Your task to perform on an android device: What's on the menu at Chick-fil-A? Image 0: 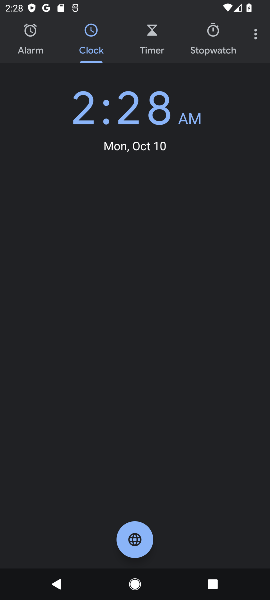
Step 0: press home button
Your task to perform on an android device: What's on the menu at Chick-fil-A? Image 1: 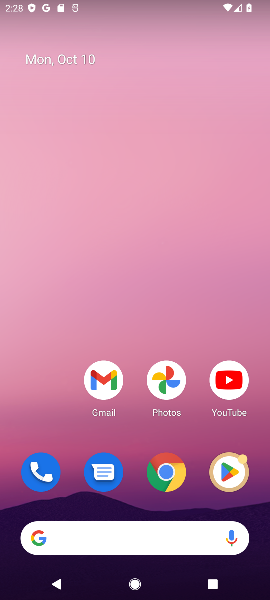
Step 1: click (139, 538)
Your task to perform on an android device: What's on the menu at Chick-fil-A? Image 2: 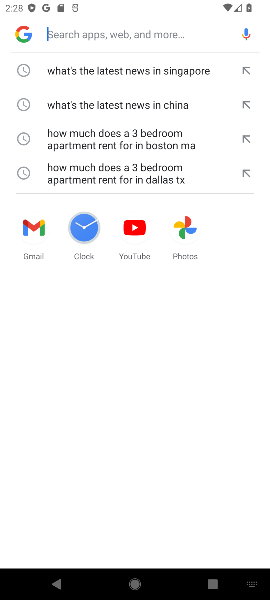
Step 2: type "What's on the menu at Chick-fil-A"
Your task to perform on an android device: What's on the menu at Chick-fil-A? Image 3: 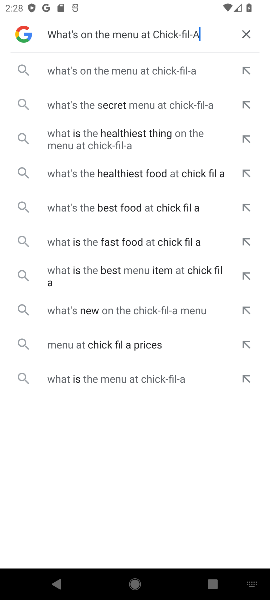
Step 3: click (128, 72)
Your task to perform on an android device: What's on the menu at Chick-fil-A? Image 4: 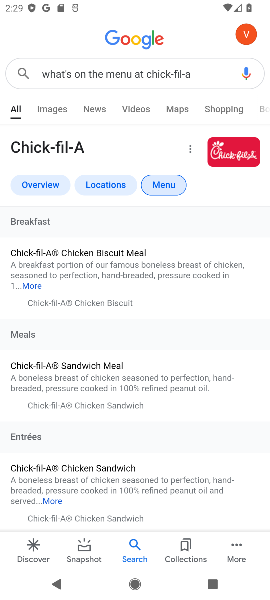
Step 4: task complete